Your task to perform on an android device: open app "Speedtest by Ookla" (install if not already installed) Image 0: 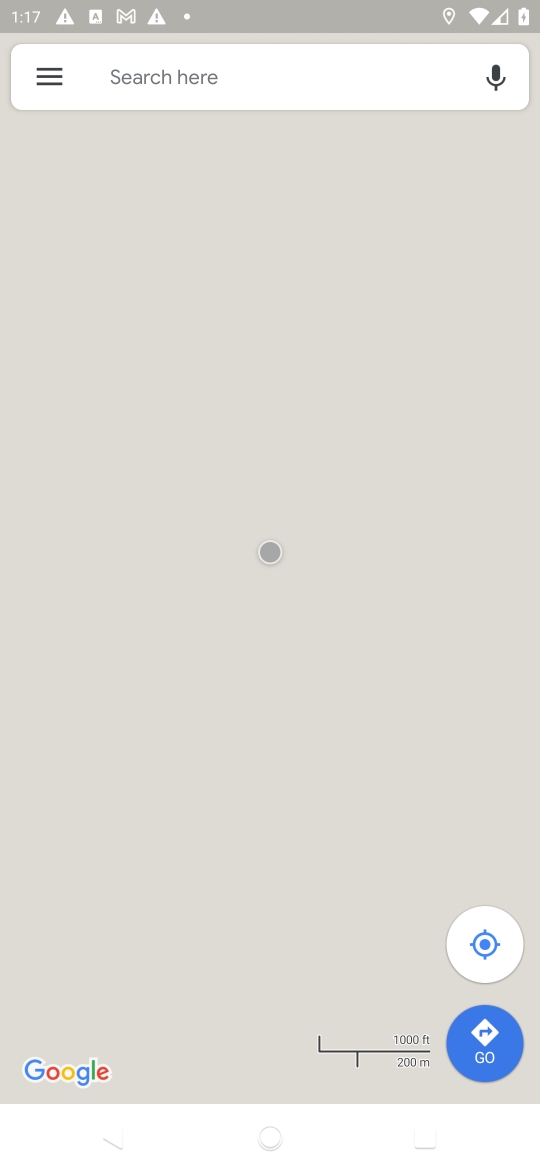
Step 0: press home button
Your task to perform on an android device: open app "Speedtest by Ookla" (install if not already installed) Image 1: 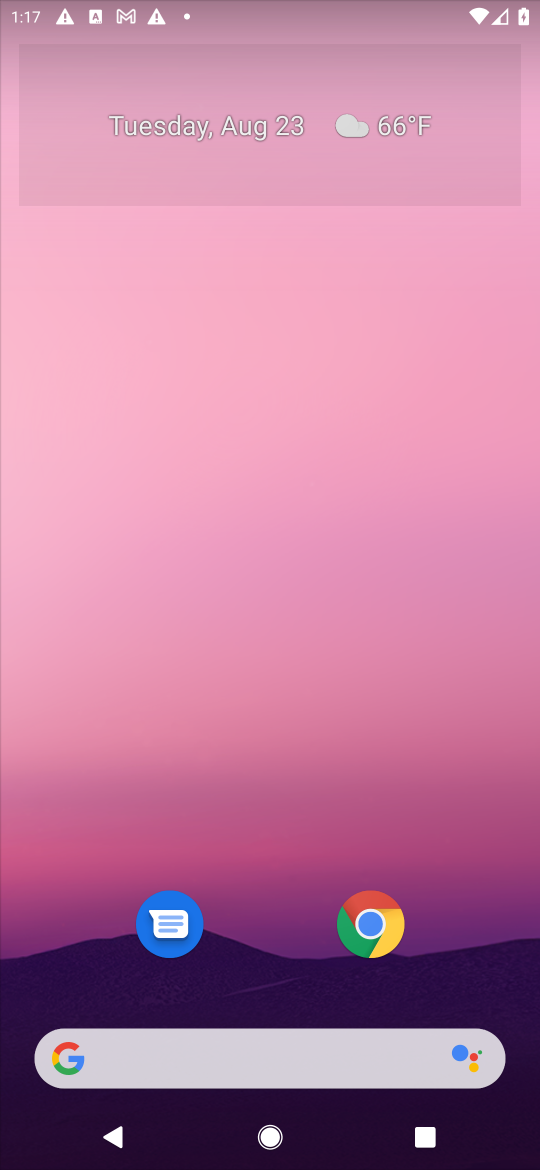
Step 1: drag from (478, 961) to (471, 134)
Your task to perform on an android device: open app "Speedtest by Ookla" (install if not already installed) Image 2: 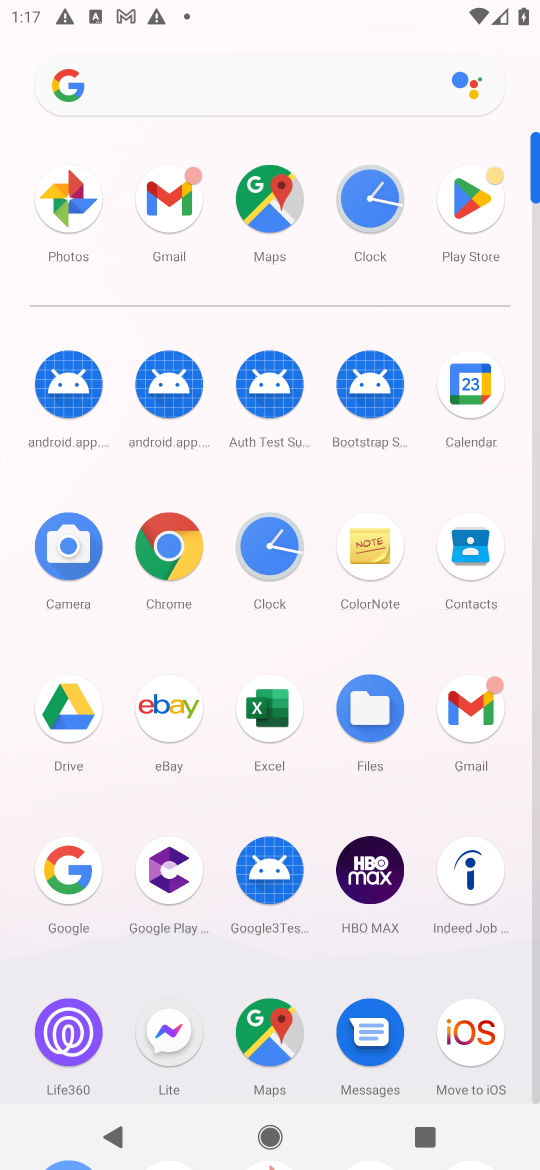
Step 2: click (478, 209)
Your task to perform on an android device: open app "Speedtest by Ookla" (install if not already installed) Image 3: 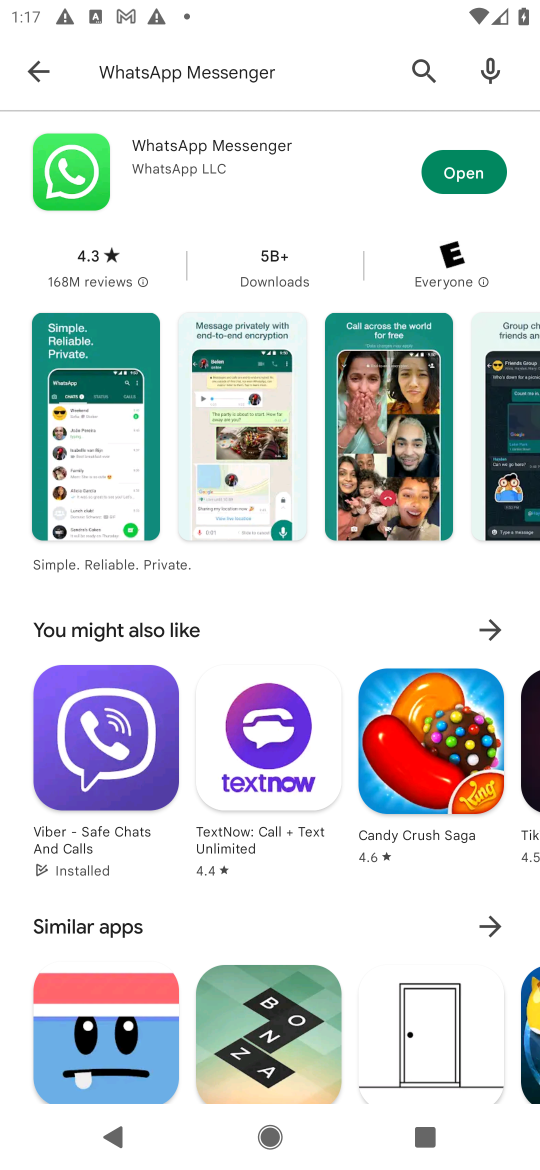
Step 3: press back button
Your task to perform on an android device: open app "Speedtest by Ookla" (install if not already installed) Image 4: 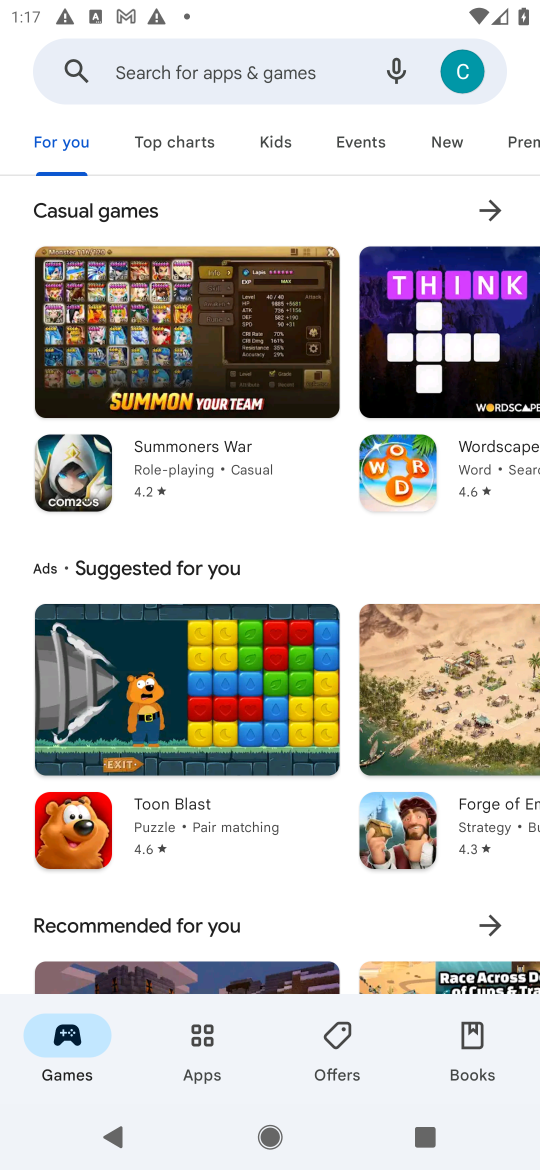
Step 4: click (208, 81)
Your task to perform on an android device: open app "Speedtest by Ookla" (install if not already installed) Image 5: 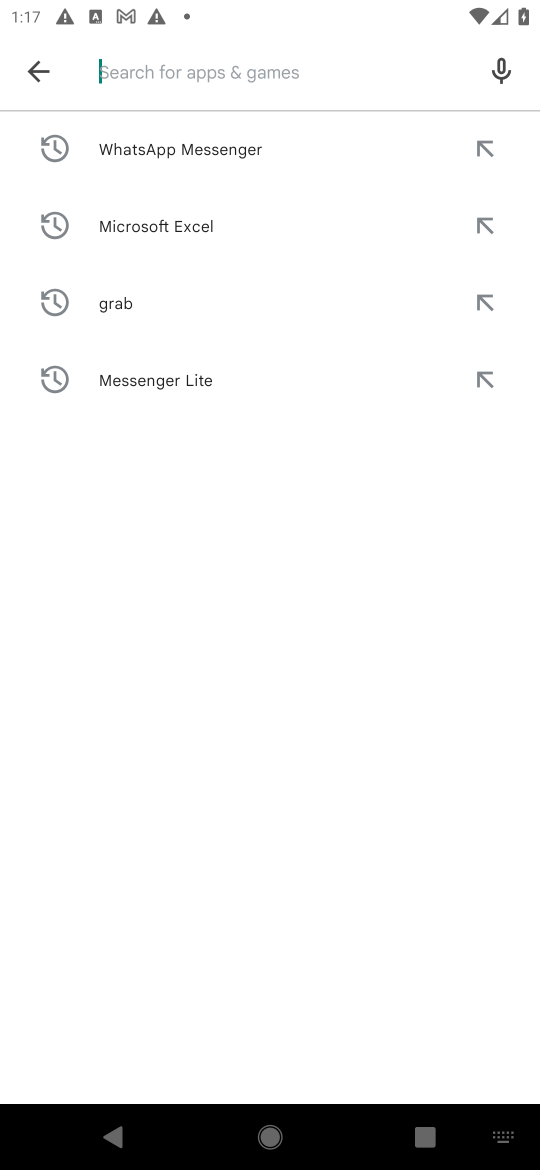
Step 5: type "Speedtest by Ookla"
Your task to perform on an android device: open app "Speedtest by Ookla" (install if not already installed) Image 6: 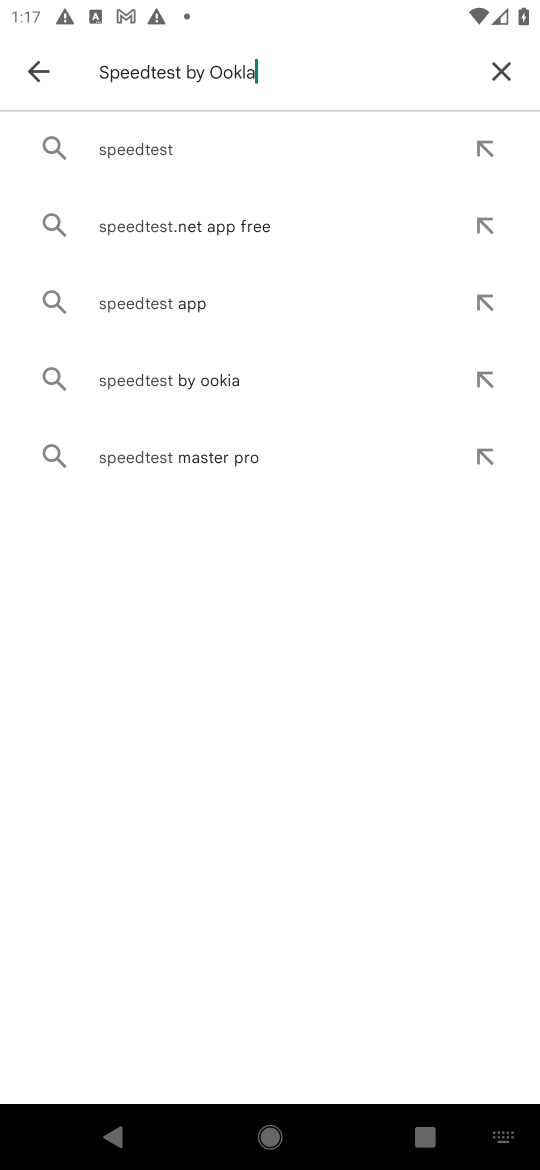
Step 6: press enter
Your task to perform on an android device: open app "Speedtest by Ookla" (install if not already installed) Image 7: 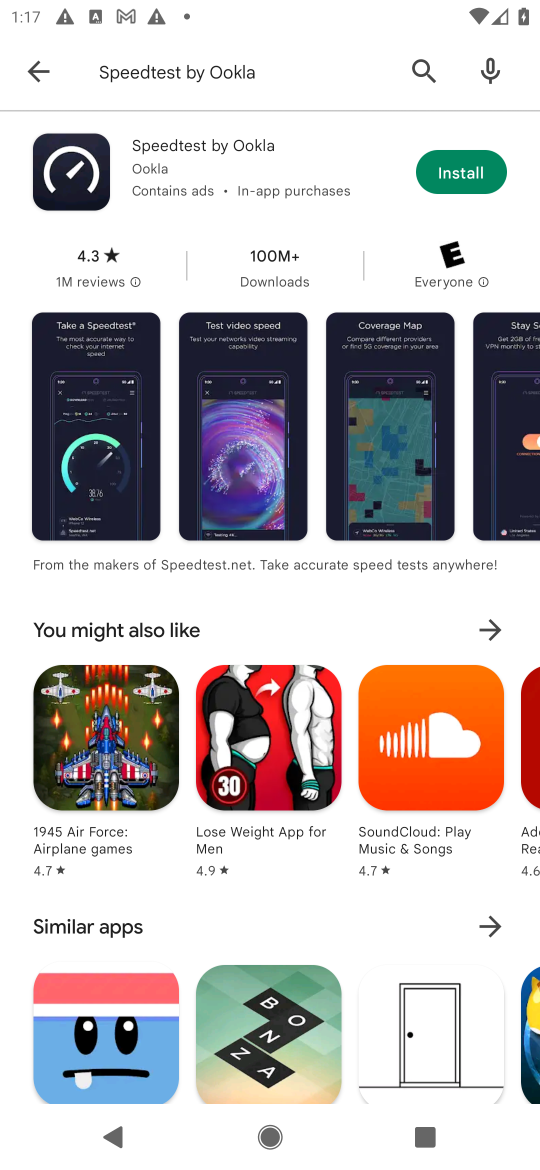
Step 7: click (462, 168)
Your task to perform on an android device: open app "Speedtest by Ookla" (install if not already installed) Image 8: 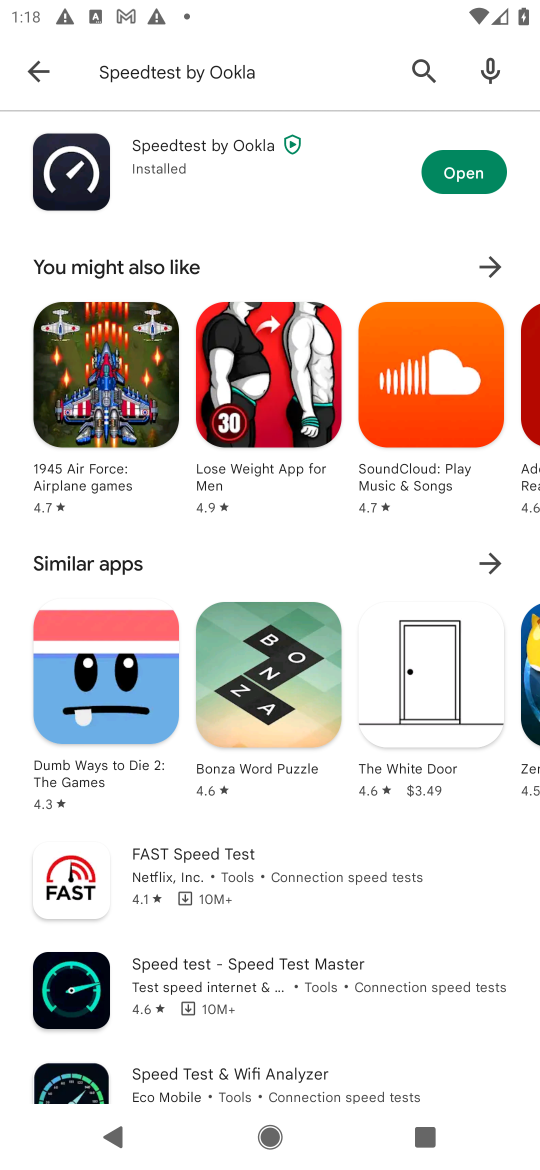
Step 8: click (474, 178)
Your task to perform on an android device: open app "Speedtest by Ookla" (install if not already installed) Image 9: 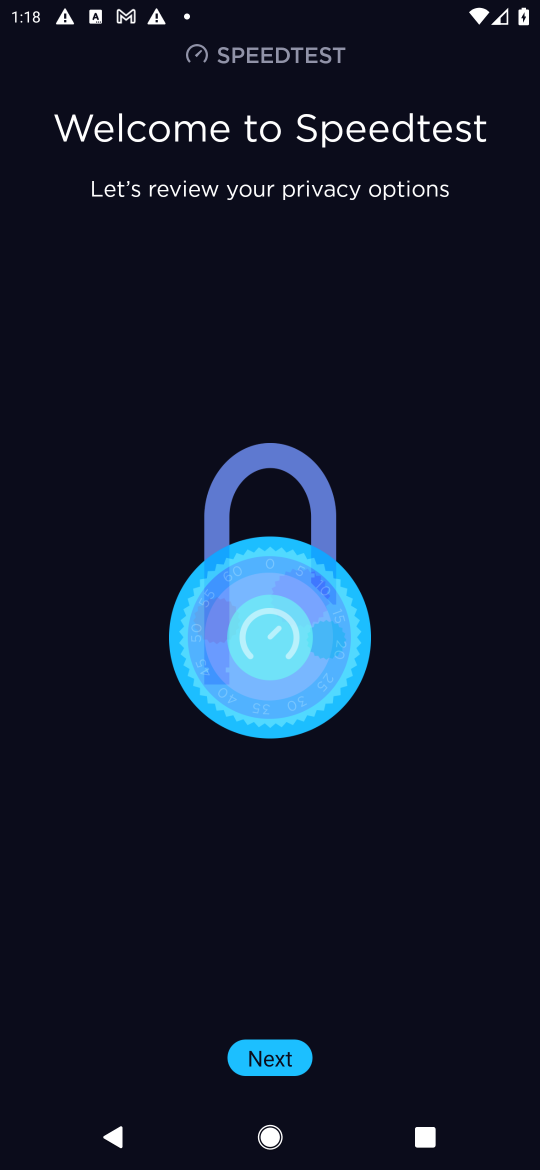
Step 9: press home button
Your task to perform on an android device: open app "Speedtest by Ookla" (install if not already installed) Image 10: 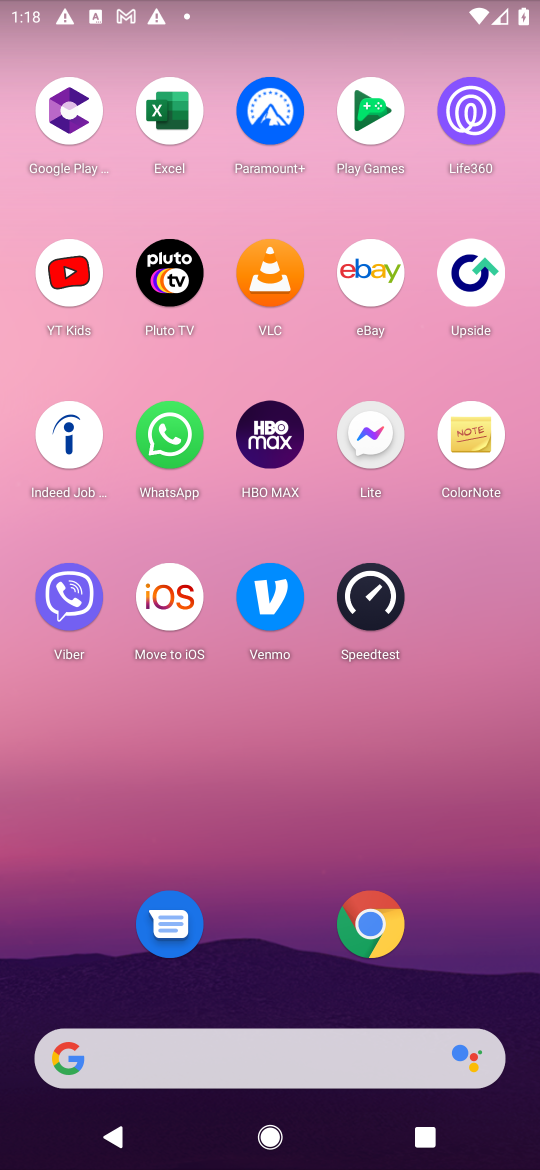
Step 10: drag from (461, 964) to (477, 183)
Your task to perform on an android device: open app "Speedtest by Ookla" (install if not already installed) Image 11: 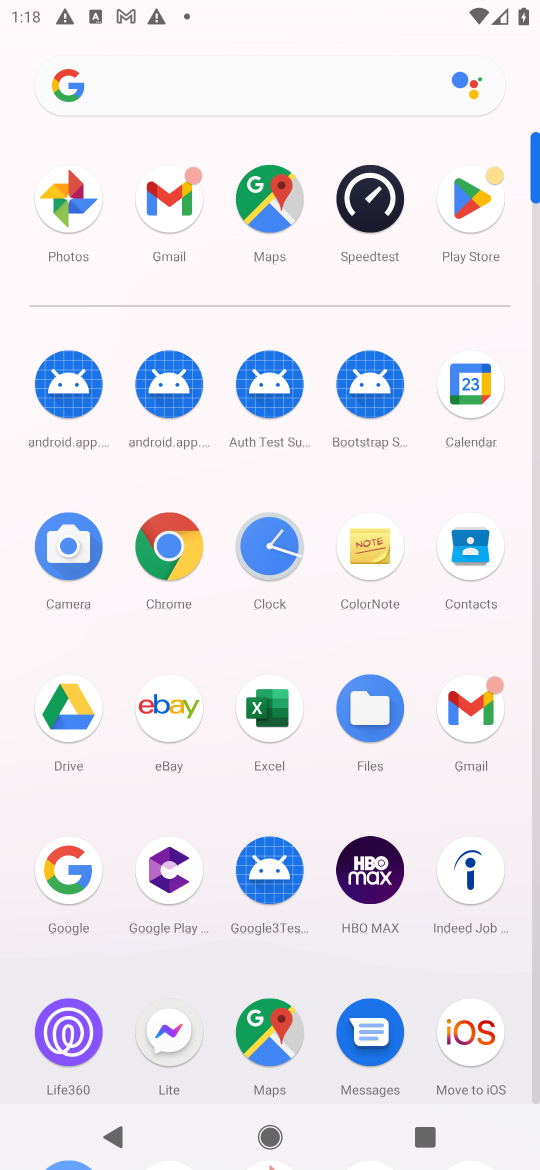
Step 11: click (470, 191)
Your task to perform on an android device: open app "Speedtest by Ookla" (install if not already installed) Image 12: 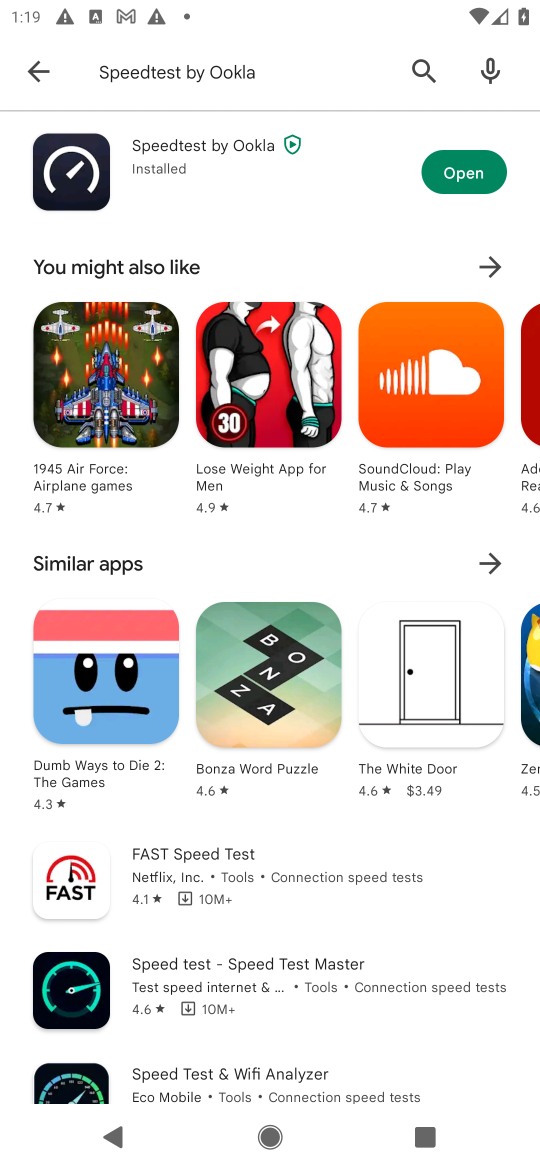
Step 12: press back button
Your task to perform on an android device: open app "Speedtest by Ookla" (install if not already installed) Image 13: 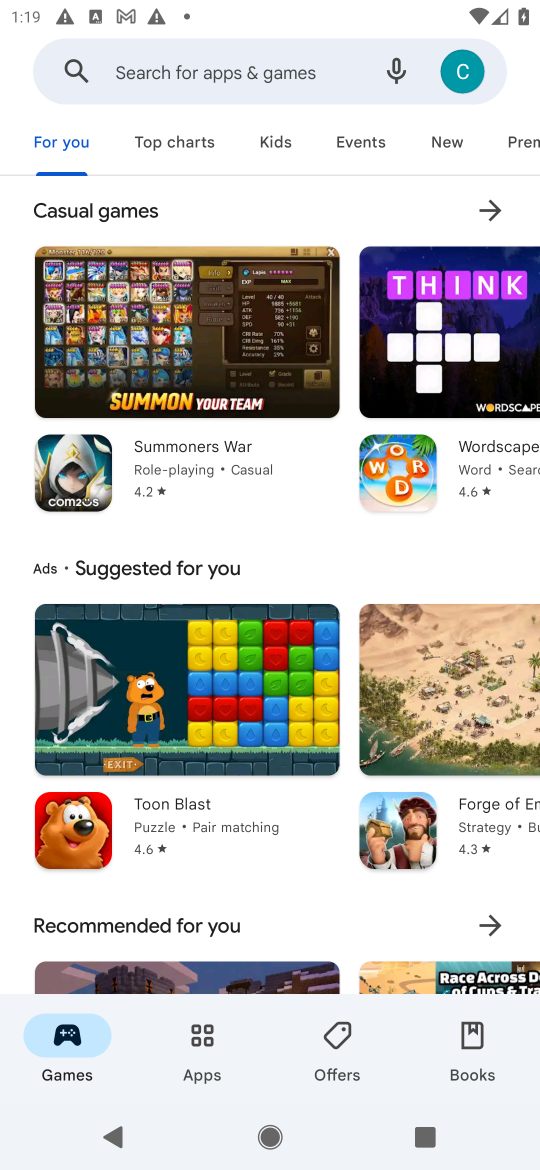
Step 13: click (229, 63)
Your task to perform on an android device: open app "Speedtest by Ookla" (install if not already installed) Image 14: 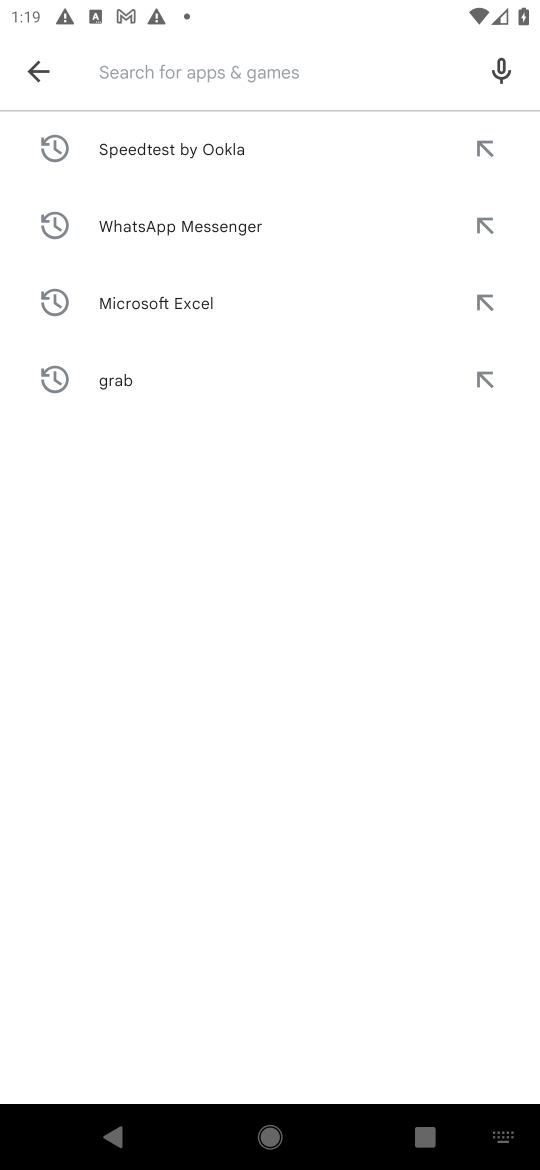
Step 14: press enter
Your task to perform on an android device: open app "Speedtest by Ookla" (install if not already installed) Image 15: 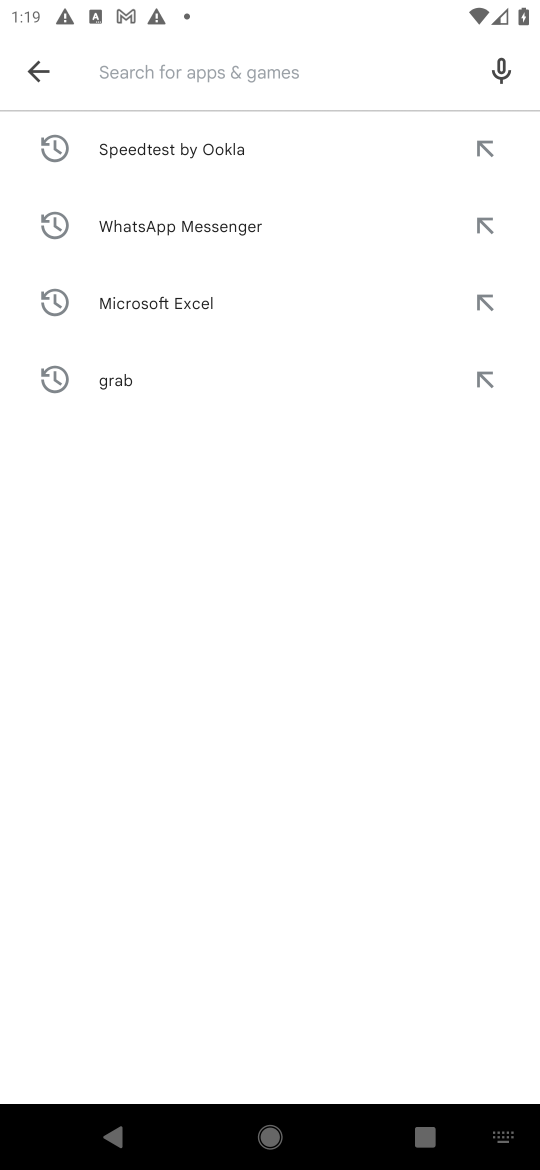
Step 15: type "Speedtest by Ookla"
Your task to perform on an android device: open app "Speedtest by Ookla" (install if not already installed) Image 16: 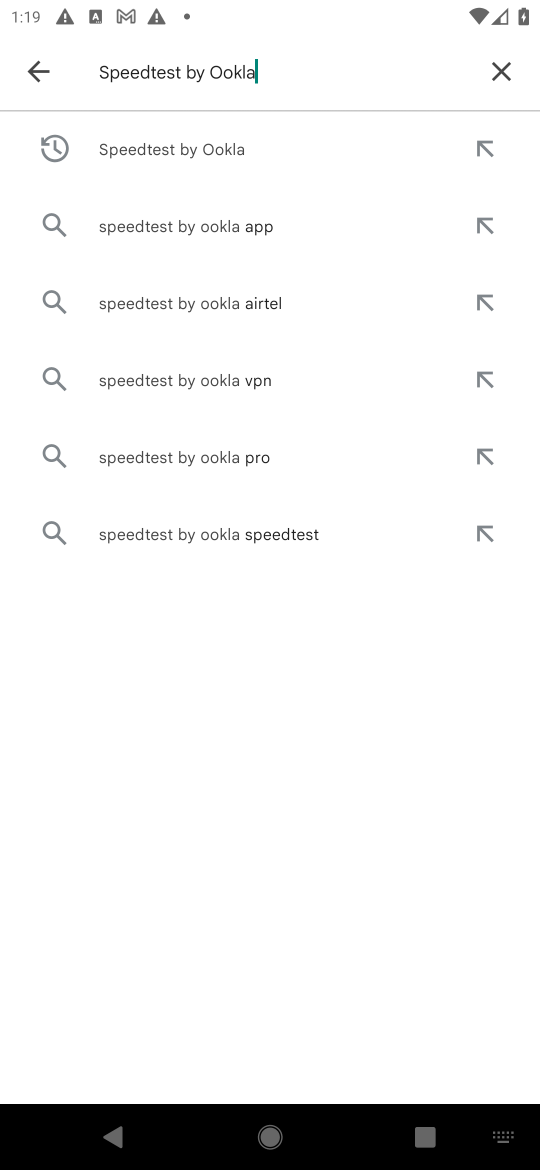
Step 16: click (188, 150)
Your task to perform on an android device: open app "Speedtest by Ookla" (install if not already installed) Image 17: 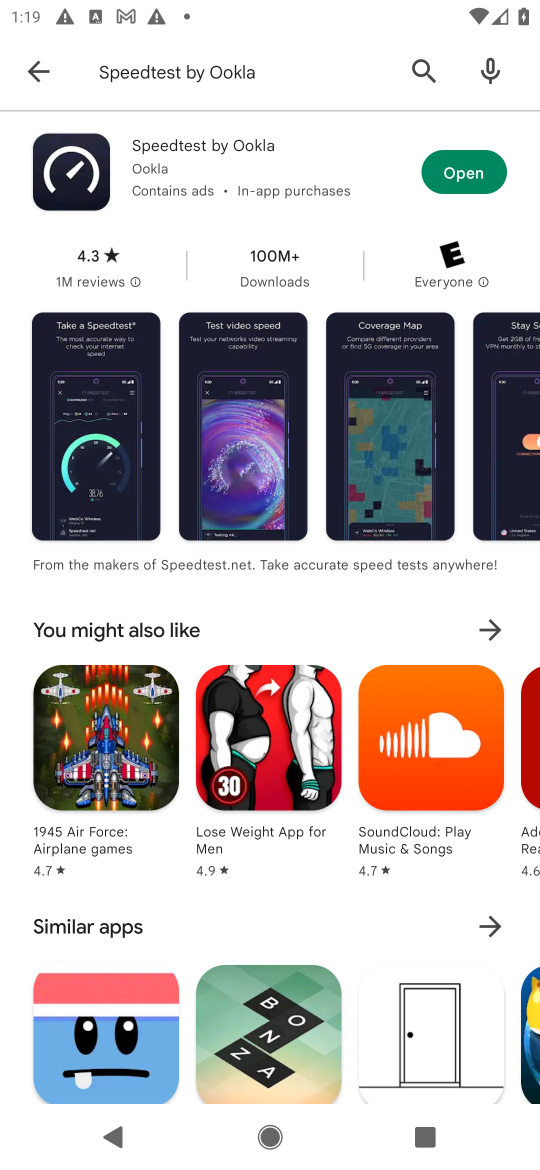
Step 17: click (454, 176)
Your task to perform on an android device: open app "Speedtest by Ookla" (install if not already installed) Image 18: 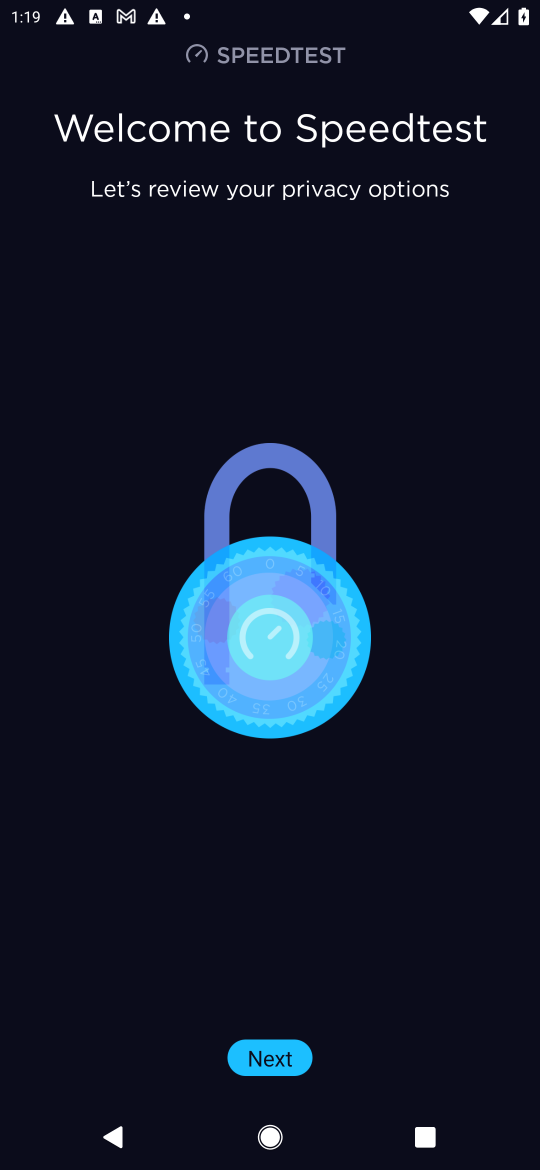
Step 18: task complete